Your task to perform on an android device: check google app version Image 0: 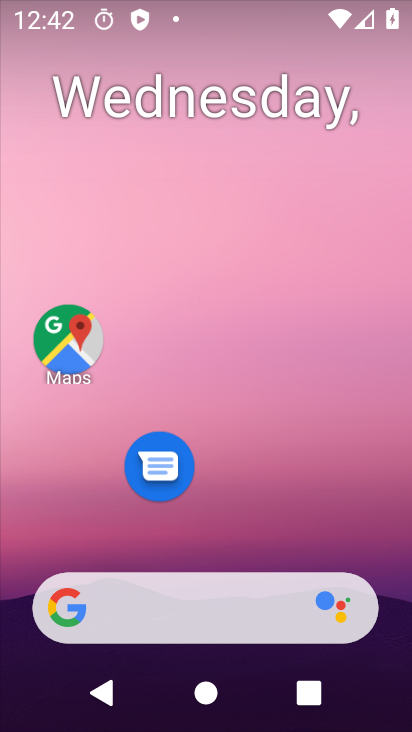
Step 0: drag from (293, 529) to (287, 228)
Your task to perform on an android device: check google app version Image 1: 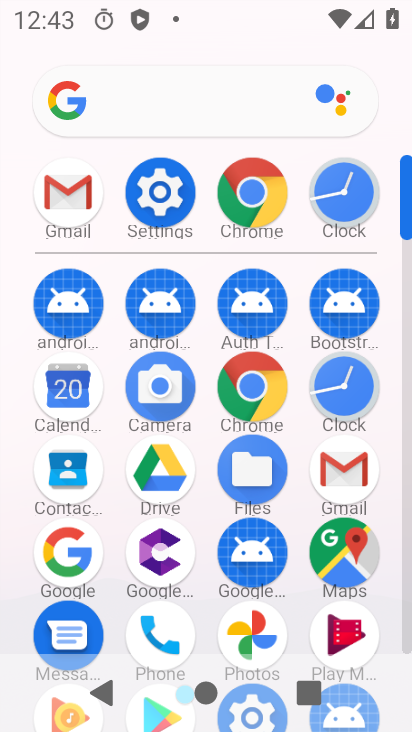
Step 1: click (252, 411)
Your task to perform on an android device: check google app version Image 2: 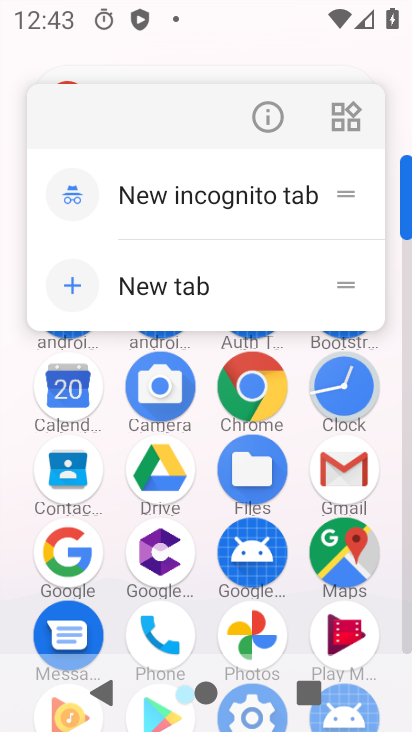
Step 2: click (256, 109)
Your task to perform on an android device: check google app version Image 3: 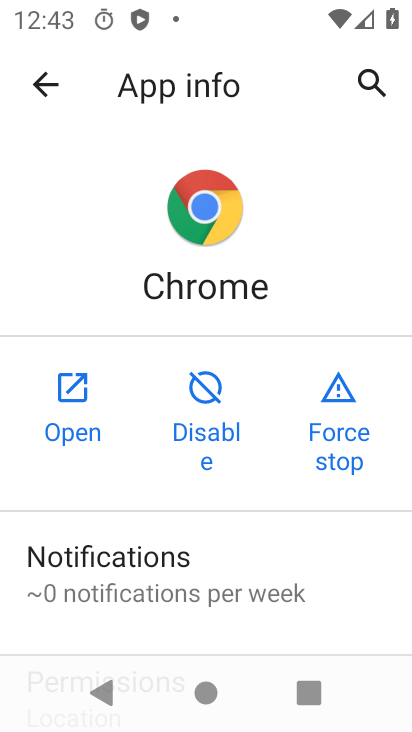
Step 3: task complete